Your task to perform on an android device: Go to network settings Image 0: 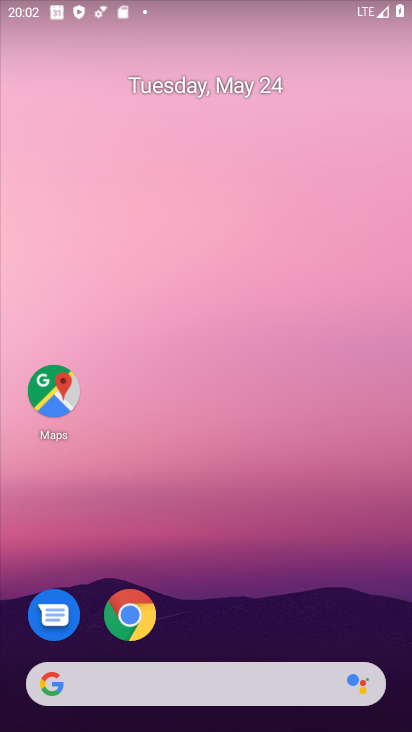
Step 0: drag from (229, 454) to (229, 201)
Your task to perform on an android device: Go to network settings Image 1: 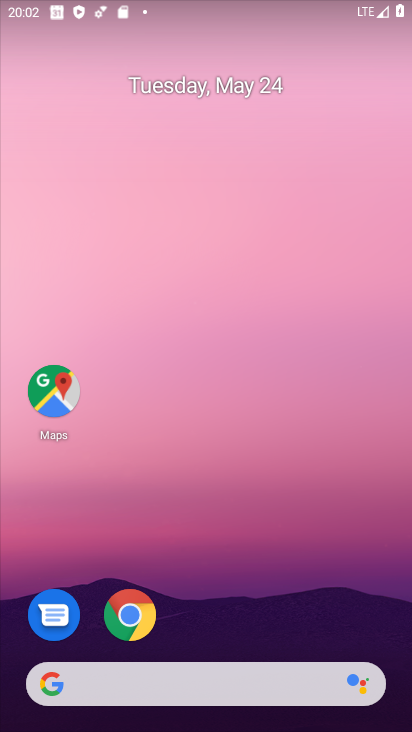
Step 1: drag from (192, 570) to (193, 503)
Your task to perform on an android device: Go to network settings Image 2: 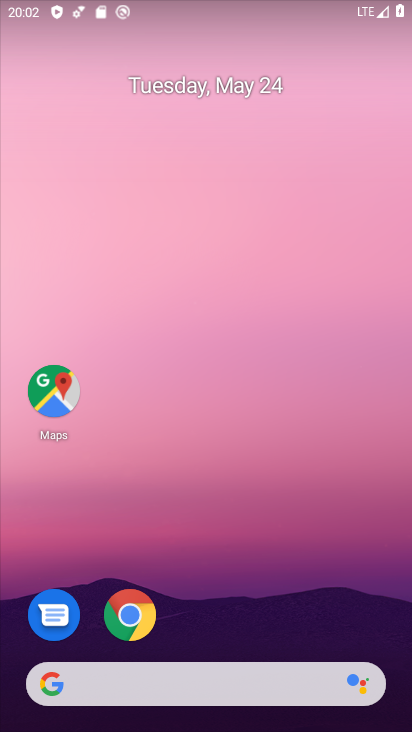
Step 2: drag from (214, 533) to (243, 242)
Your task to perform on an android device: Go to network settings Image 3: 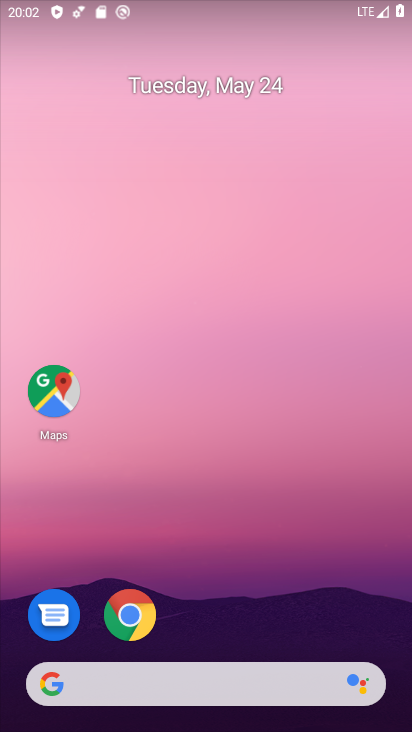
Step 3: drag from (222, 533) to (242, 246)
Your task to perform on an android device: Go to network settings Image 4: 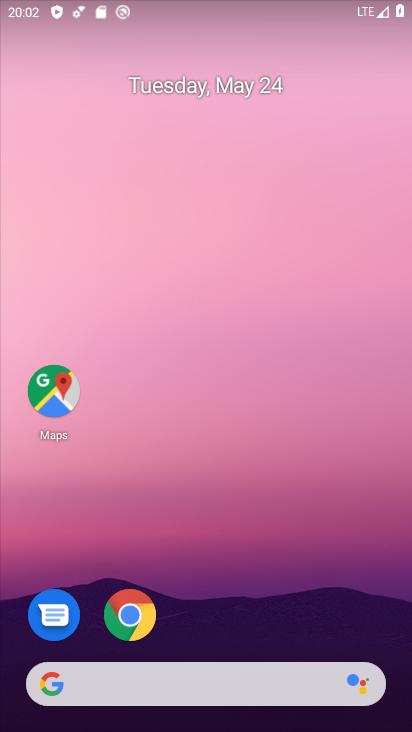
Step 4: drag from (197, 624) to (254, 201)
Your task to perform on an android device: Go to network settings Image 5: 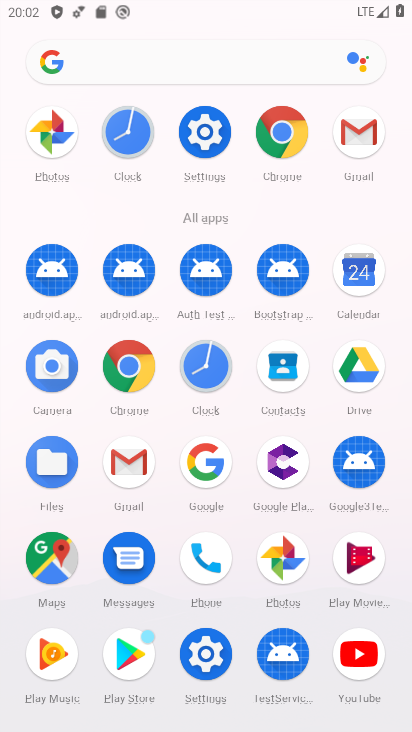
Step 5: click (203, 116)
Your task to perform on an android device: Go to network settings Image 6: 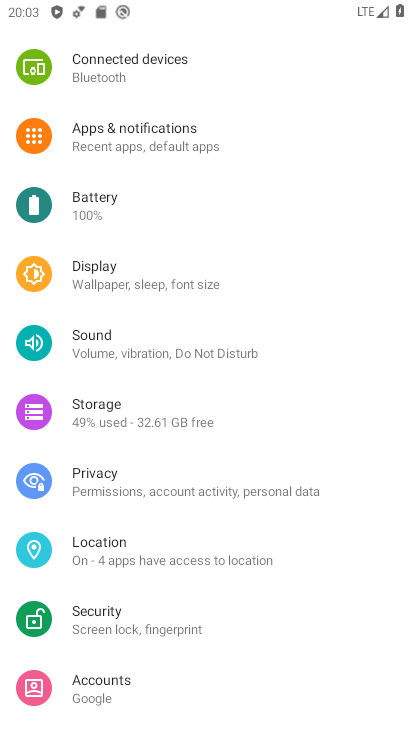
Step 6: drag from (224, 124) to (189, 558)
Your task to perform on an android device: Go to network settings Image 7: 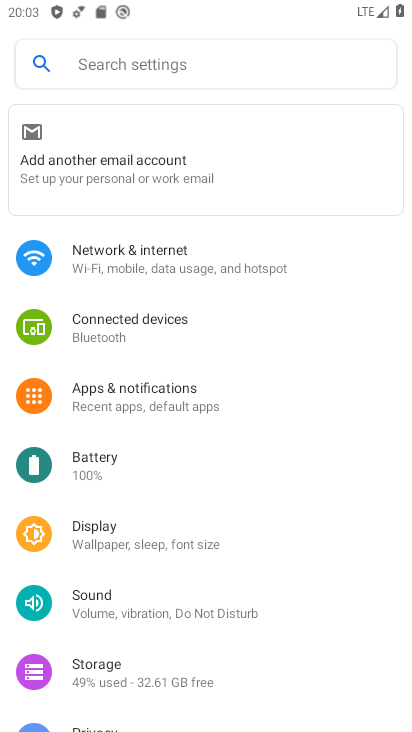
Step 7: click (152, 248)
Your task to perform on an android device: Go to network settings Image 8: 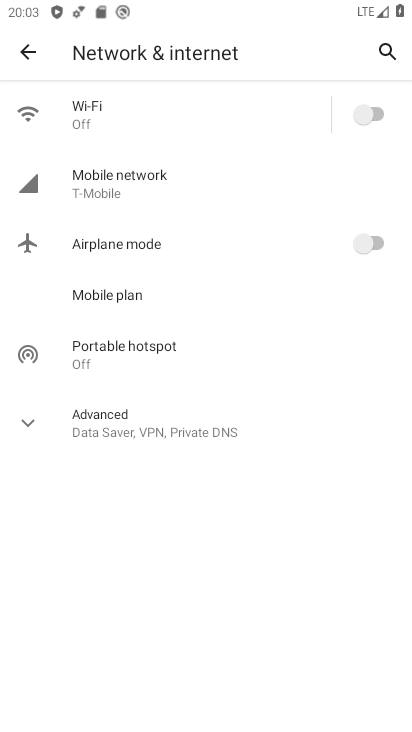
Step 8: task complete